Your task to perform on an android device: turn on notifications settings in the gmail app Image 0: 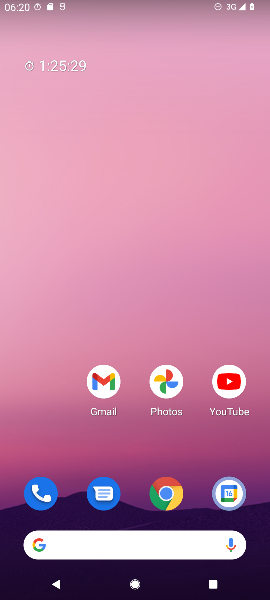
Step 0: drag from (56, 463) to (72, 34)
Your task to perform on an android device: turn on notifications settings in the gmail app Image 1: 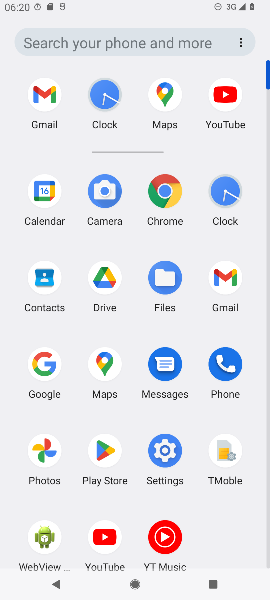
Step 1: click (226, 278)
Your task to perform on an android device: turn on notifications settings in the gmail app Image 2: 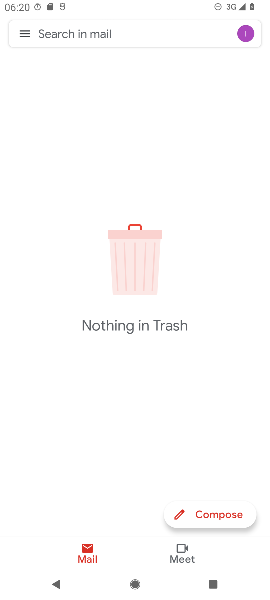
Step 2: click (27, 32)
Your task to perform on an android device: turn on notifications settings in the gmail app Image 3: 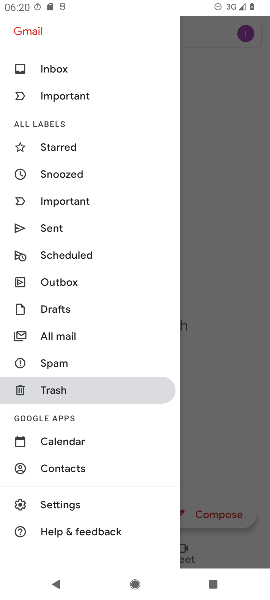
Step 3: click (79, 513)
Your task to perform on an android device: turn on notifications settings in the gmail app Image 4: 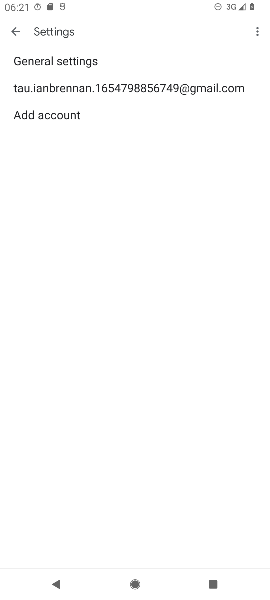
Step 4: click (178, 83)
Your task to perform on an android device: turn on notifications settings in the gmail app Image 5: 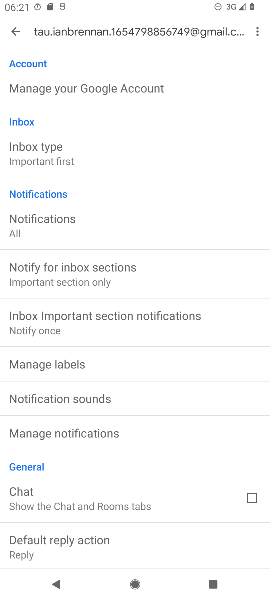
Step 5: drag from (181, 445) to (182, 178)
Your task to perform on an android device: turn on notifications settings in the gmail app Image 6: 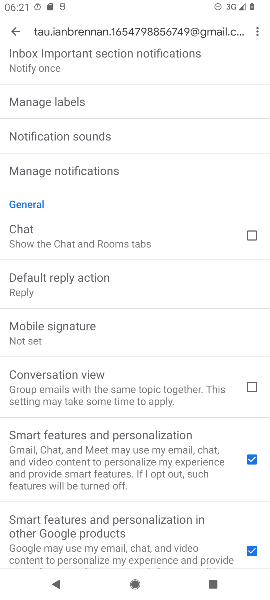
Step 6: drag from (182, 427) to (184, 197)
Your task to perform on an android device: turn on notifications settings in the gmail app Image 7: 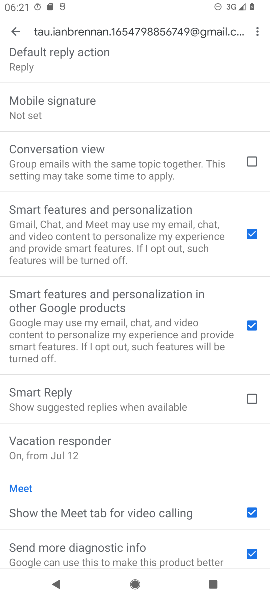
Step 7: drag from (142, 135) to (147, 342)
Your task to perform on an android device: turn on notifications settings in the gmail app Image 8: 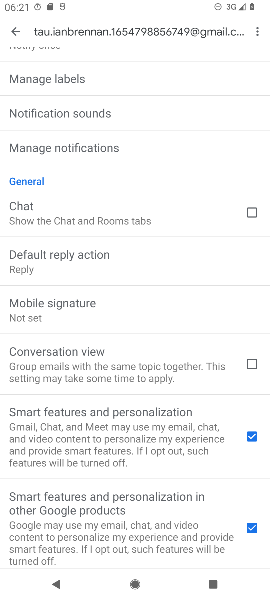
Step 8: click (132, 145)
Your task to perform on an android device: turn on notifications settings in the gmail app Image 9: 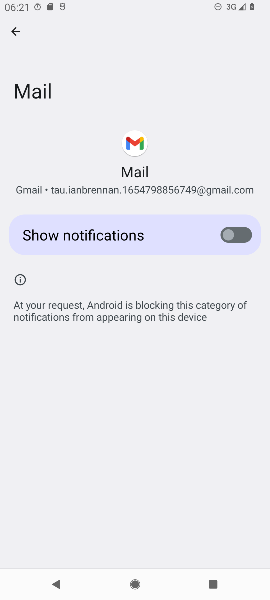
Step 9: click (228, 243)
Your task to perform on an android device: turn on notifications settings in the gmail app Image 10: 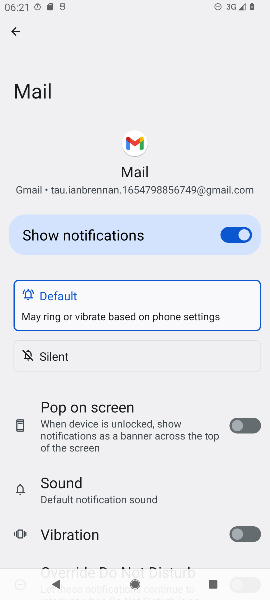
Step 10: task complete